Your task to perform on an android device: turn off location Image 0: 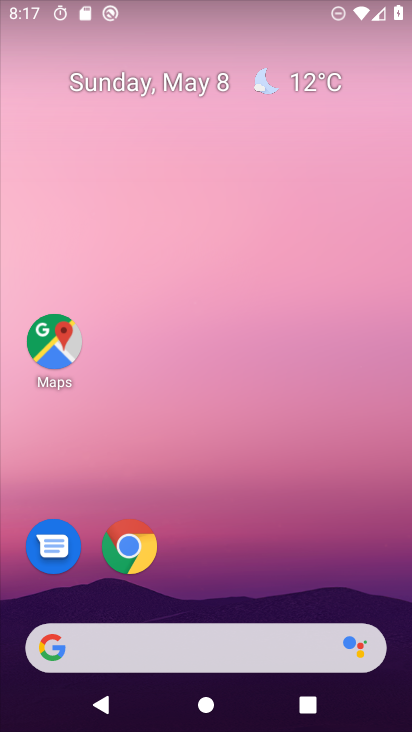
Step 0: drag from (313, 525) to (269, 9)
Your task to perform on an android device: turn off location Image 1: 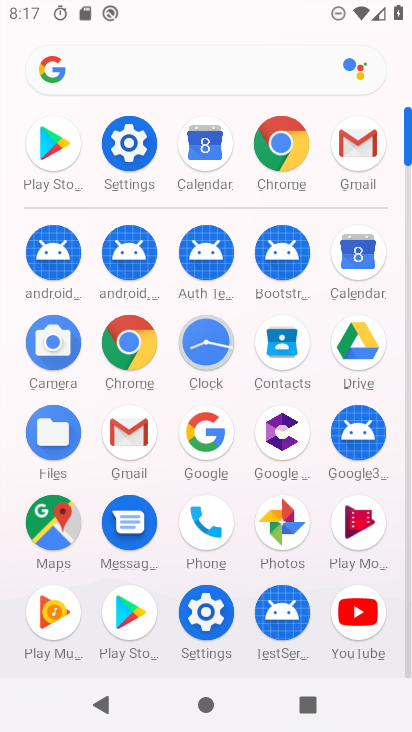
Step 1: click (129, 135)
Your task to perform on an android device: turn off location Image 2: 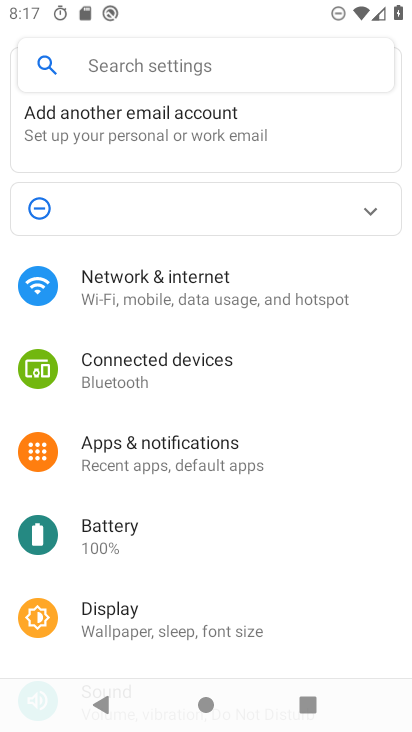
Step 2: drag from (193, 581) to (208, 76)
Your task to perform on an android device: turn off location Image 3: 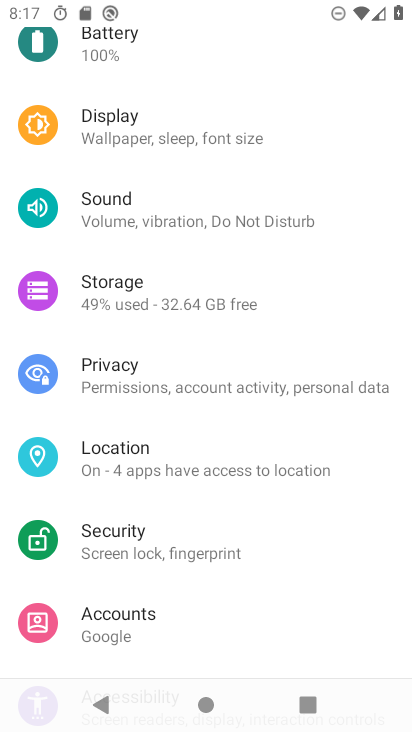
Step 3: click (240, 462)
Your task to perform on an android device: turn off location Image 4: 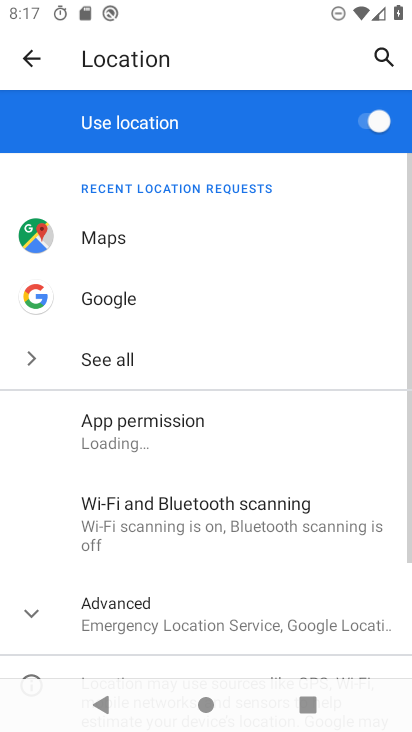
Step 4: click (363, 111)
Your task to perform on an android device: turn off location Image 5: 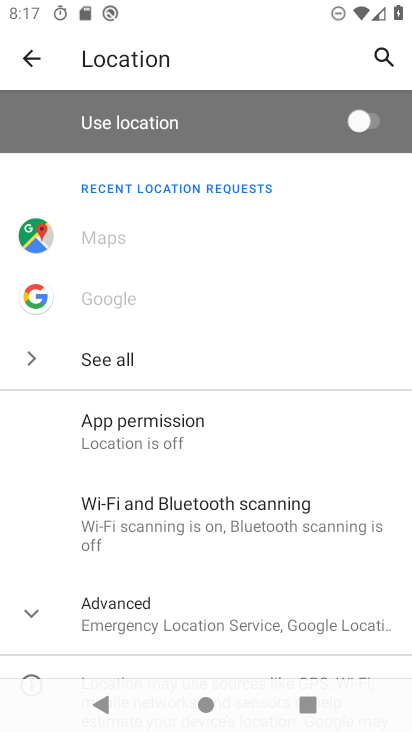
Step 5: task complete